Your task to perform on an android device: Open Maps and search for coffee Image 0: 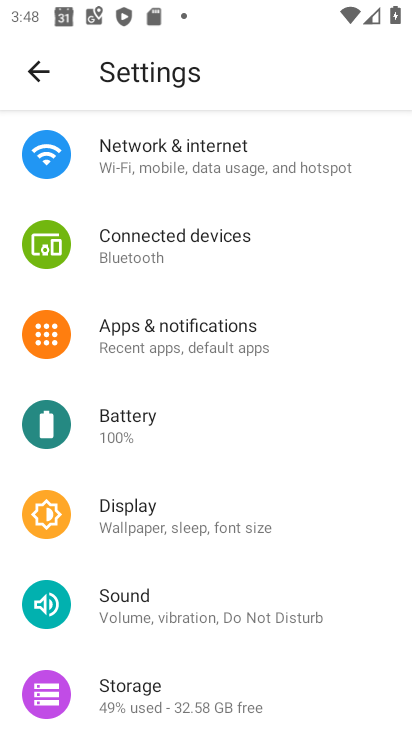
Step 0: press home button
Your task to perform on an android device: Open Maps and search for coffee Image 1: 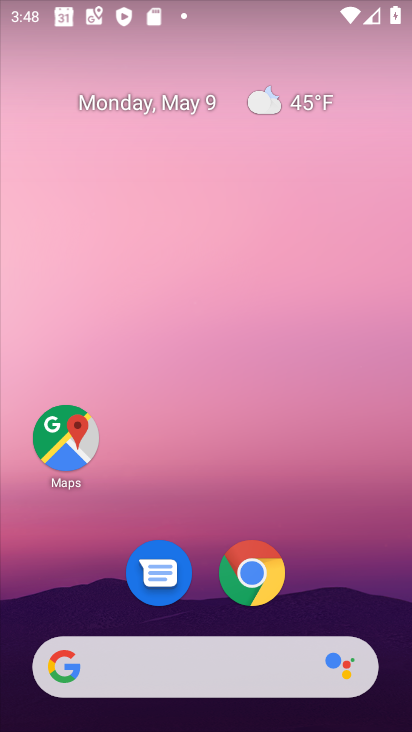
Step 1: click (55, 440)
Your task to perform on an android device: Open Maps and search for coffee Image 2: 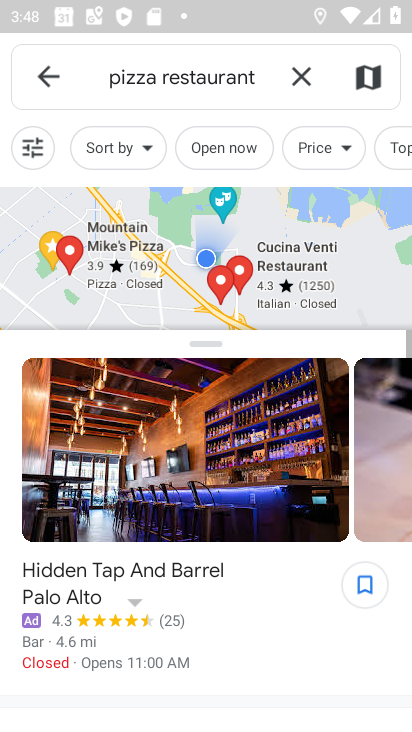
Step 2: click (299, 63)
Your task to perform on an android device: Open Maps and search for coffee Image 3: 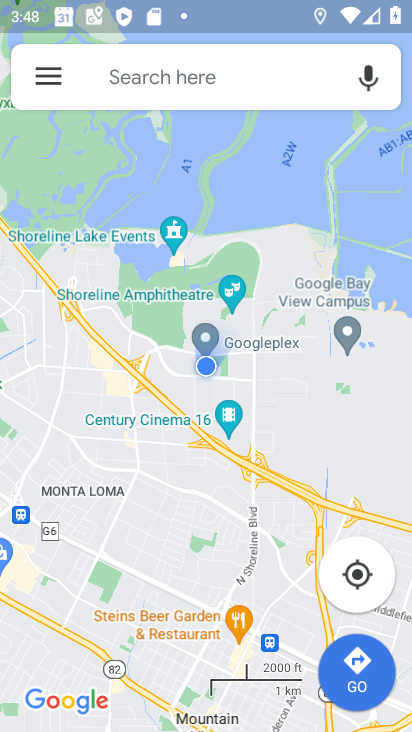
Step 3: click (123, 86)
Your task to perform on an android device: Open Maps and search for coffee Image 4: 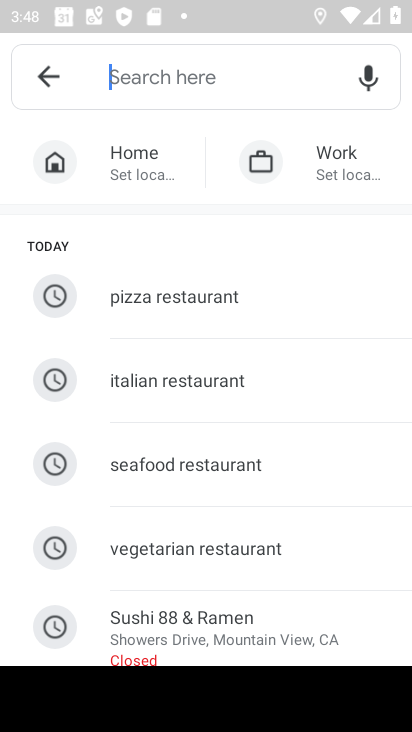
Step 4: type "coffee"
Your task to perform on an android device: Open Maps and search for coffee Image 5: 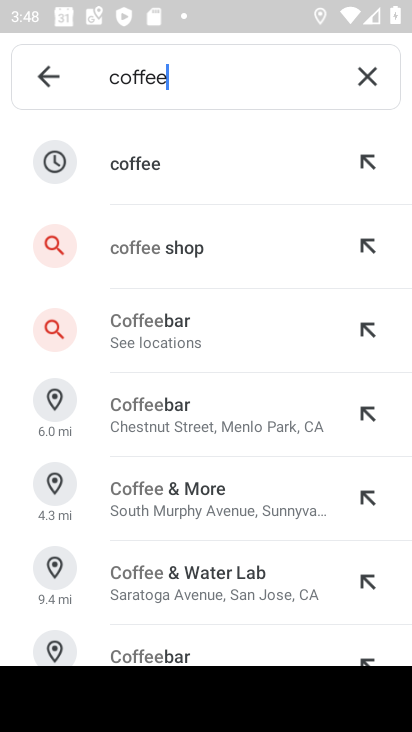
Step 5: click (123, 169)
Your task to perform on an android device: Open Maps and search for coffee Image 6: 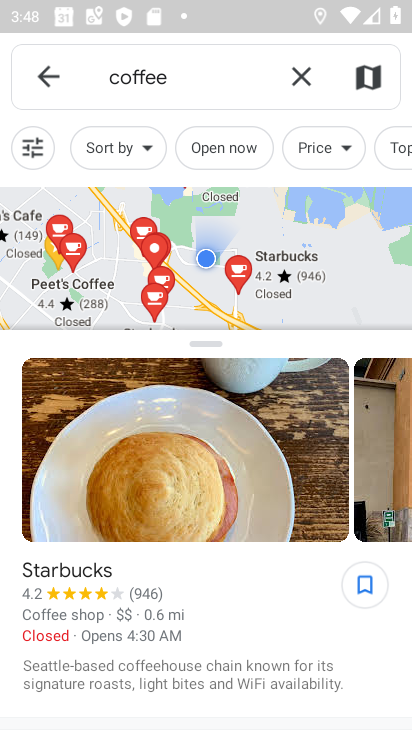
Step 6: task complete